Your task to perform on an android device: Is it going to rain today? Image 0: 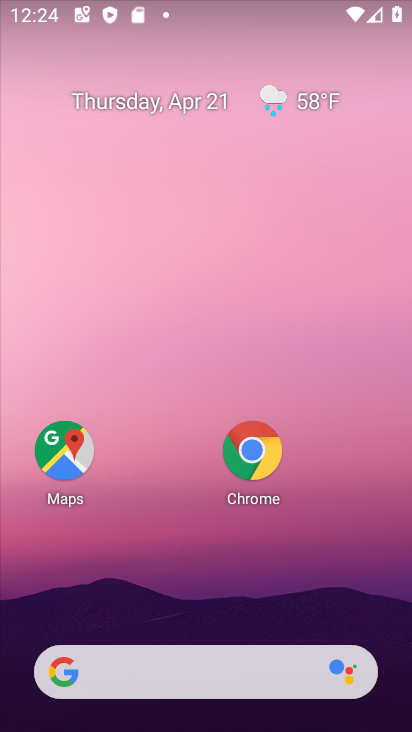
Step 0: click (331, 93)
Your task to perform on an android device: Is it going to rain today? Image 1: 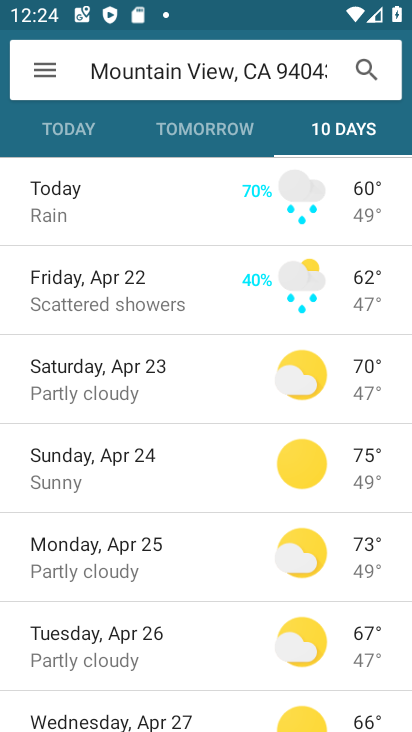
Step 1: click (168, 176)
Your task to perform on an android device: Is it going to rain today? Image 2: 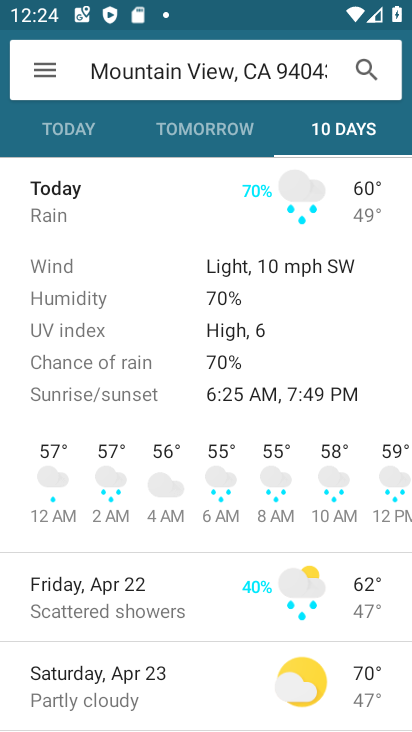
Step 2: task complete